Your task to perform on an android device: move an email to a new category in the gmail app Image 0: 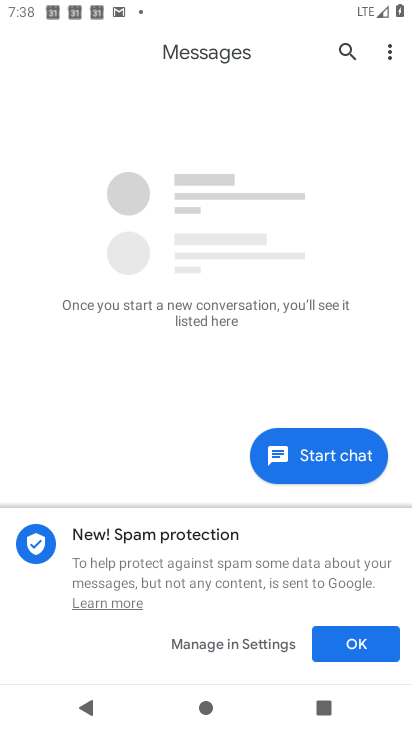
Step 0: press home button
Your task to perform on an android device: move an email to a new category in the gmail app Image 1: 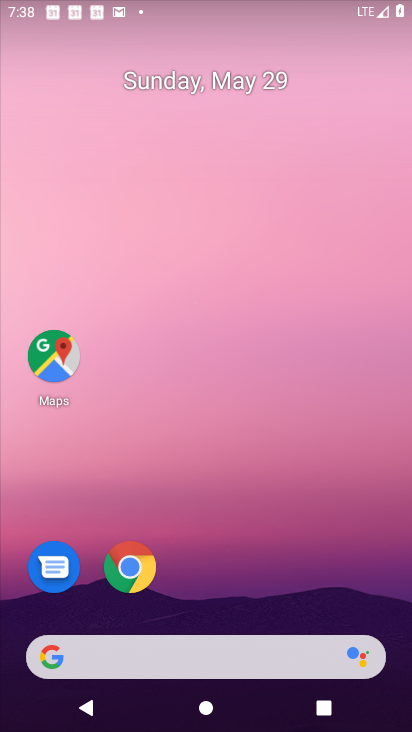
Step 1: drag from (280, 603) to (281, 298)
Your task to perform on an android device: move an email to a new category in the gmail app Image 2: 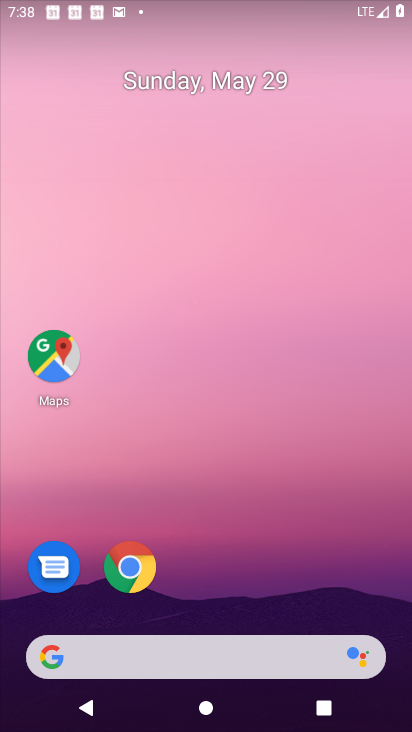
Step 2: drag from (259, 642) to (289, 283)
Your task to perform on an android device: move an email to a new category in the gmail app Image 3: 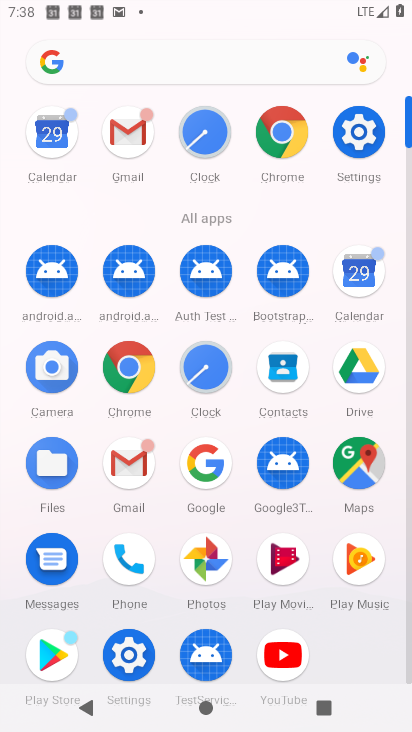
Step 3: click (120, 462)
Your task to perform on an android device: move an email to a new category in the gmail app Image 4: 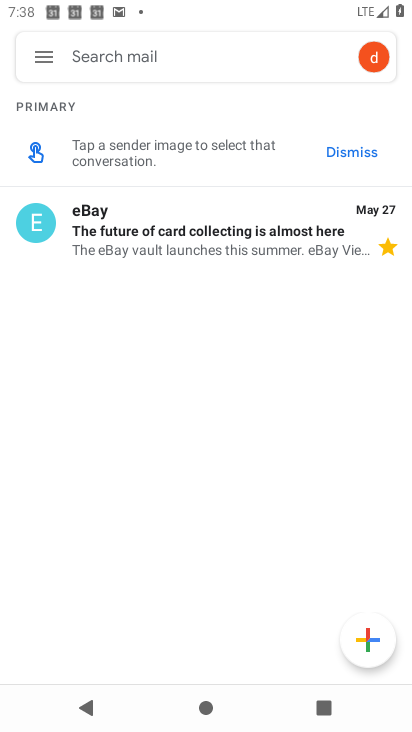
Step 4: click (41, 63)
Your task to perform on an android device: move an email to a new category in the gmail app Image 5: 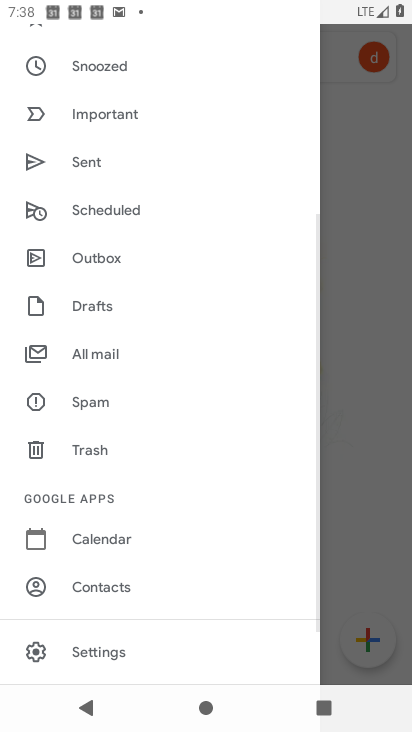
Step 5: click (88, 349)
Your task to perform on an android device: move an email to a new category in the gmail app Image 6: 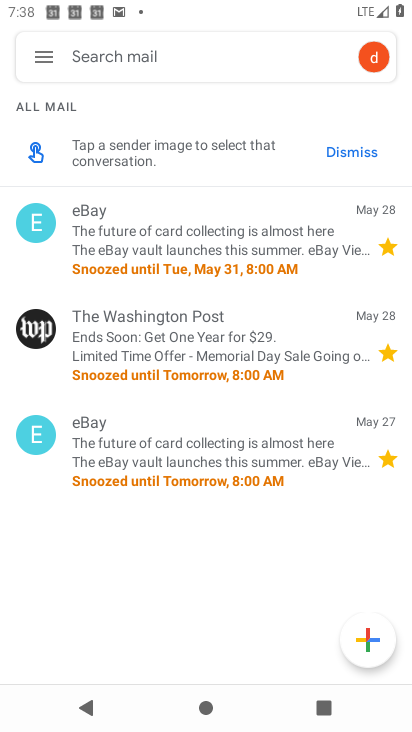
Step 6: click (30, 217)
Your task to perform on an android device: move an email to a new category in the gmail app Image 7: 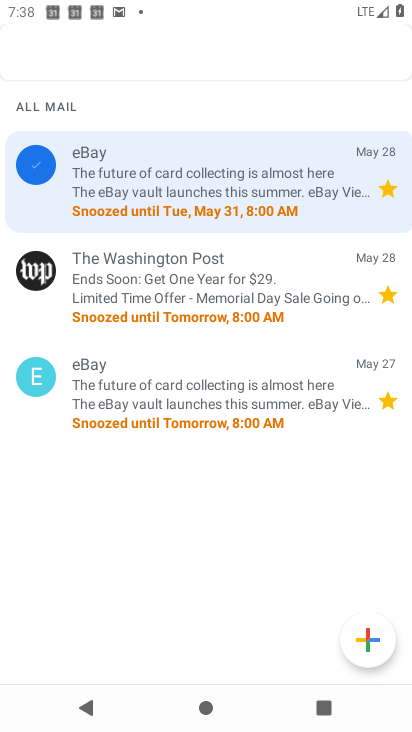
Step 7: click (33, 215)
Your task to perform on an android device: move an email to a new category in the gmail app Image 8: 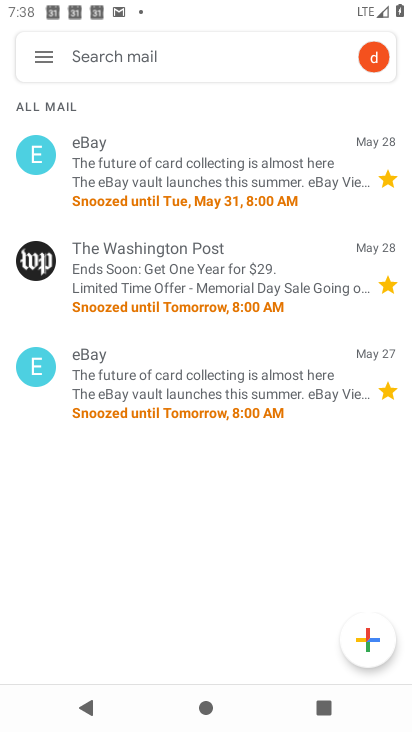
Step 8: click (37, 162)
Your task to perform on an android device: move an email to a new category in the gmail app Image 9: 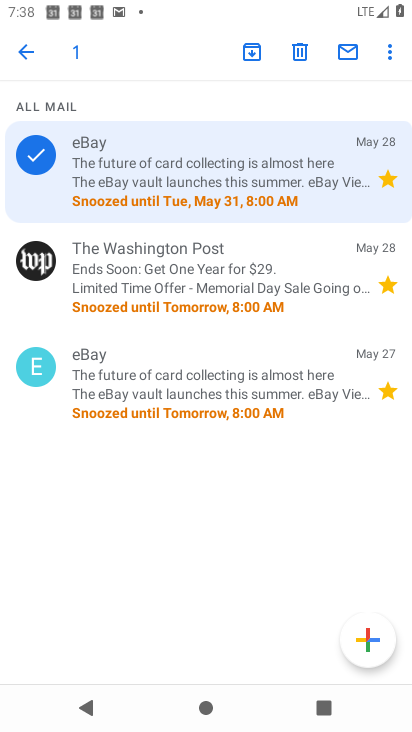
Step 9: click (381, 56)
Your task to perform on an android device: move an email to a new category in the gmail app Image 10: 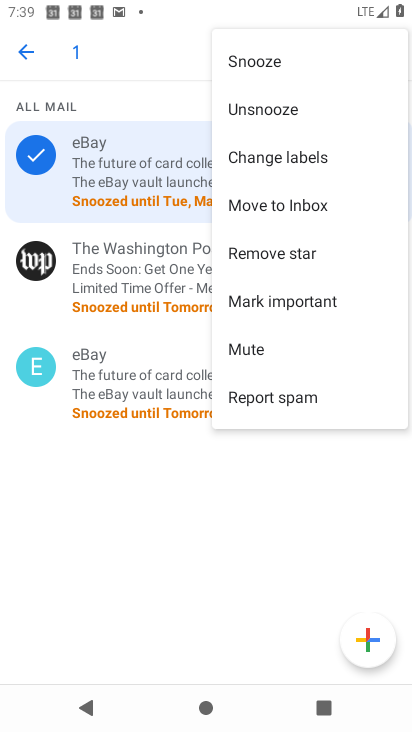
Step 10: click (276, 197)
Your task to perform on an android device: move an email to a new category in the gmail app Image 11: 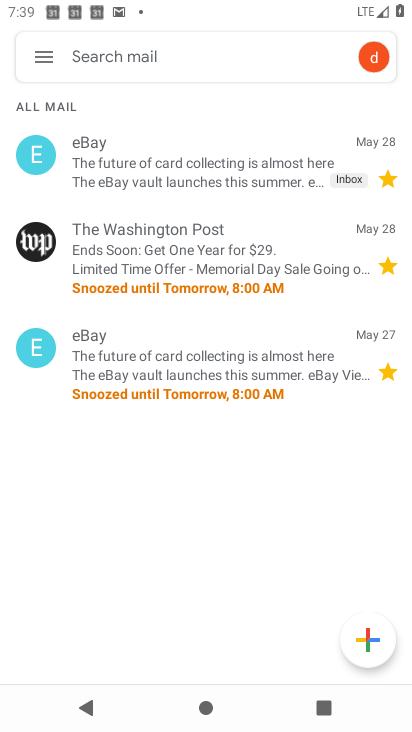
Step 11: click (38, 150)
Your task to perform on an android device: move an email to a new category in the gmail app Image 12: 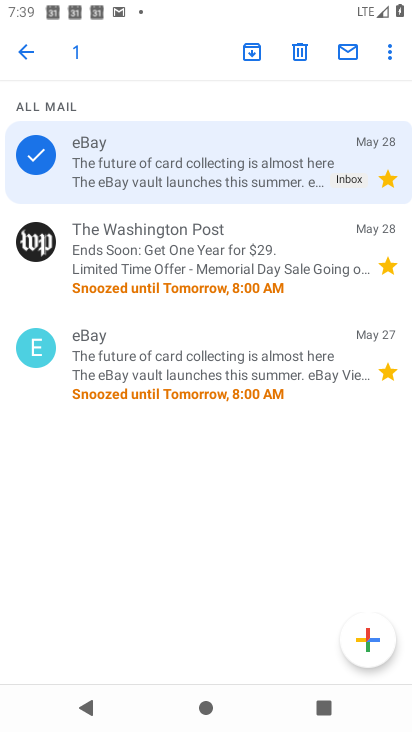
Step 12: click (397, 43)
Your task to perform on an android device: move an email to a new category in the gmail app Image 13: 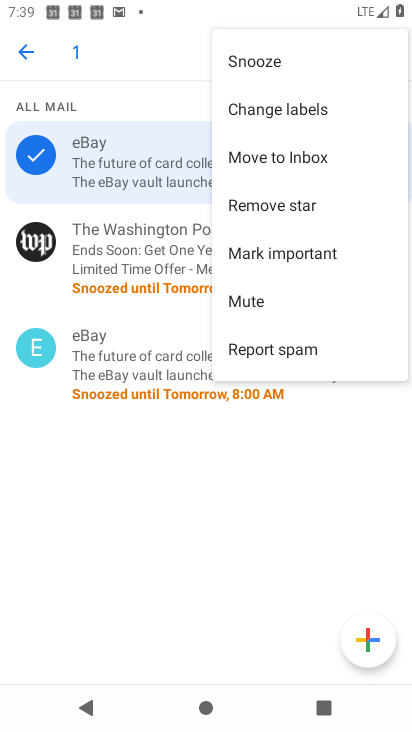
Step 13: click (293, 150)
Your task to perform on an android device: move an email to a new category in the gmail app Image 14: 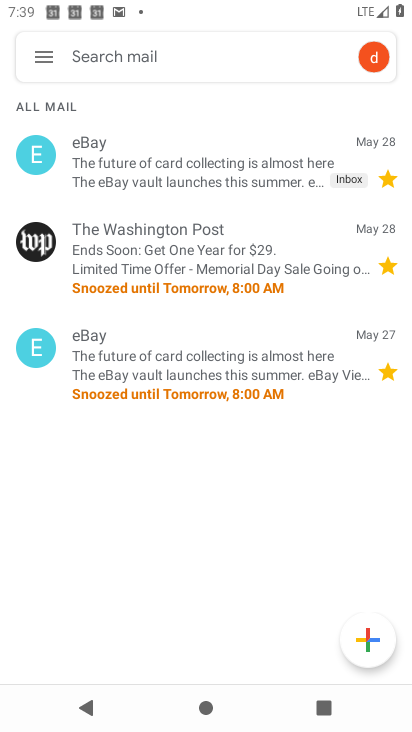
Step 14: task complete